Your task to perform on an android device: read, delete, or share a saved page in the chrome app Image 0: 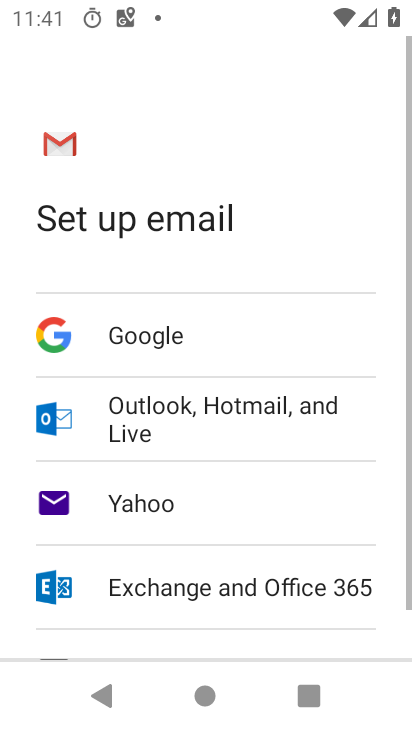
Step 0: press home button
Your task to perform on an android device: read, delete, or share a saved page in the chrome app Image 1: 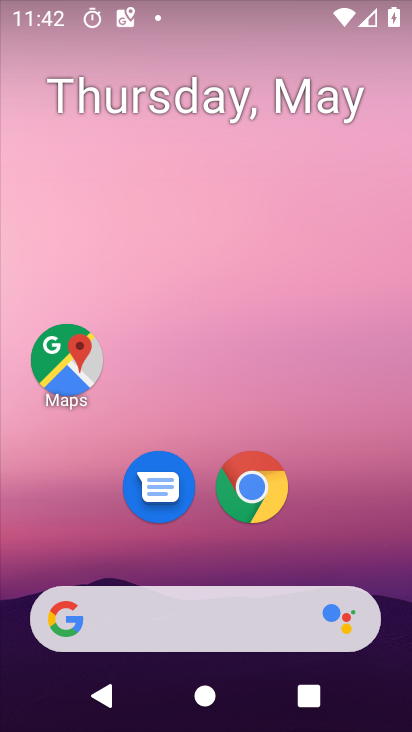
Step 1: click (247, 478)
Your task to perform on an android device: read, delete, or share a saved page in the chrome app Image 2: 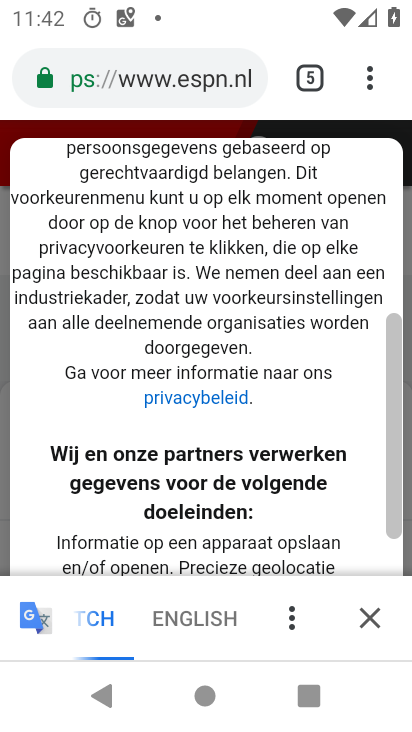
Step 2: click (380, 80)
Your task to perform on an android device: read, delete, or share a saved page in the chrome app Image 3: 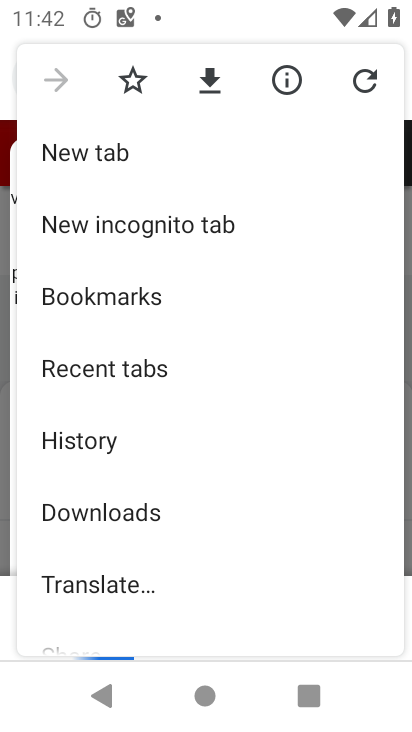
Step 3: click (132, 506)
Your task to perform on an android device: read, delete, or share a saved page in the chrome app Image 4: 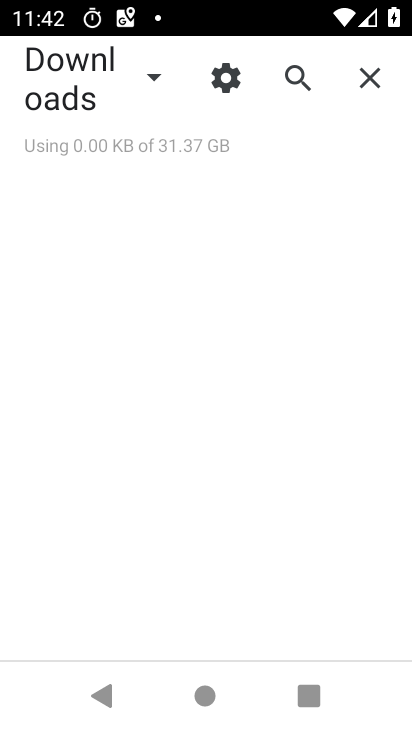
Step 4: click (151, 76)
Your task to perform on an android device: read, delete, or share a saved page in the chrome app Image 5: 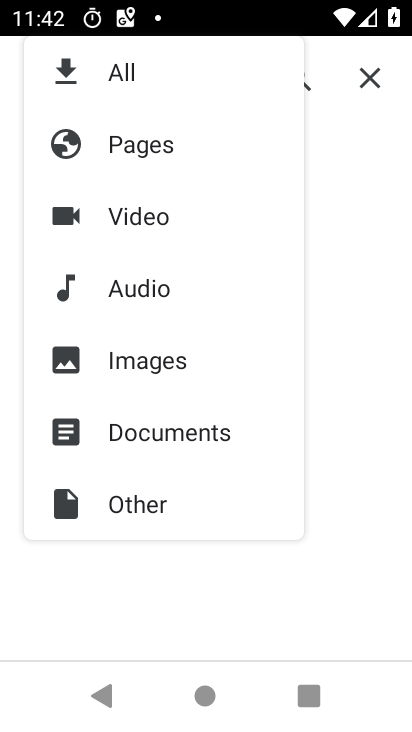
Step 5: click (139, 140)
Your task to perform on an android device: read, delete, or share a saved page in the chrome app Image 6: 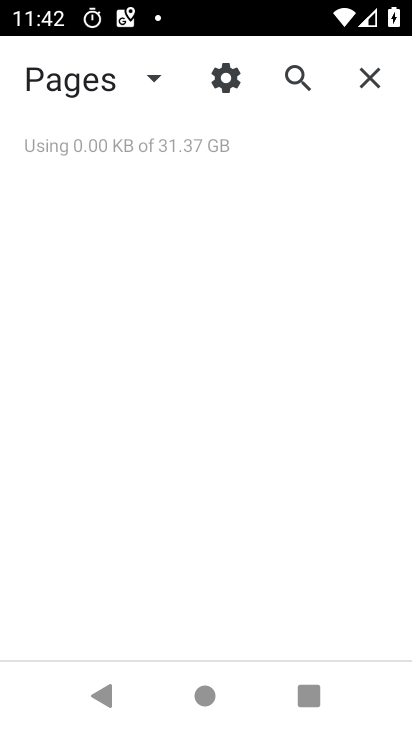
Step 6: task complete